Your task to perform on an android device: manage bookmarks in the chrome app Image 0: 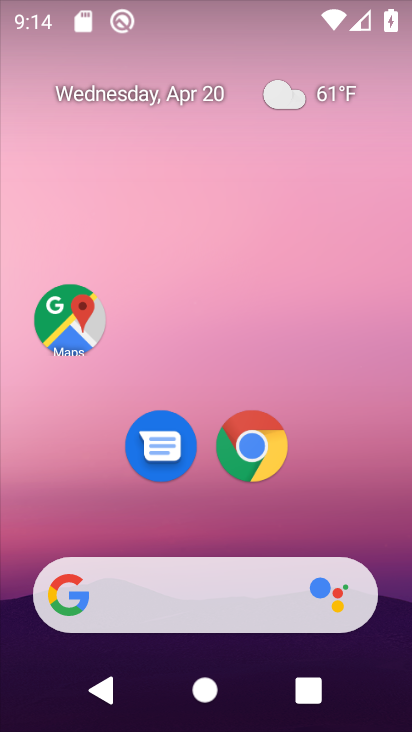
Step 0: drag from (393, 502) to (311, 156)
Your task to perform on an android device: manage bookmarks in the chrome app Image 1: 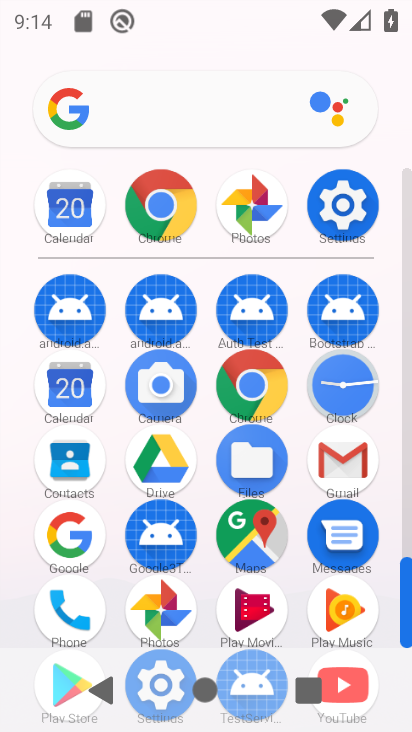
Step 1: click (265, 393)
Your task to perform on an android device: manage bookmarks in the chrome app Image 2: 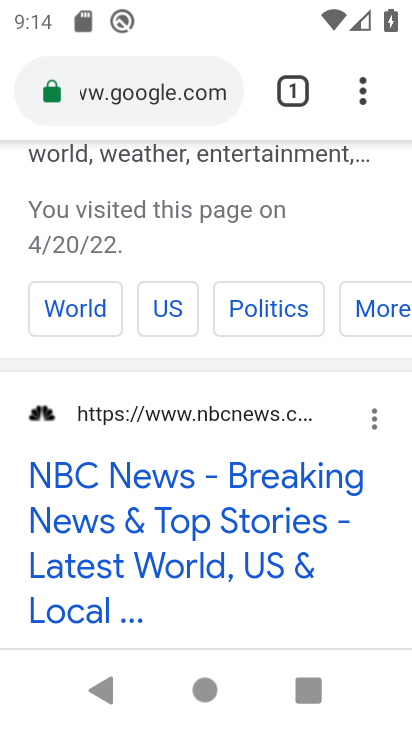
Step 2: drag from (363, 104) to (118, 446)
Your task to perform on an android device: manage bookmarks in the chrome app Image 3: 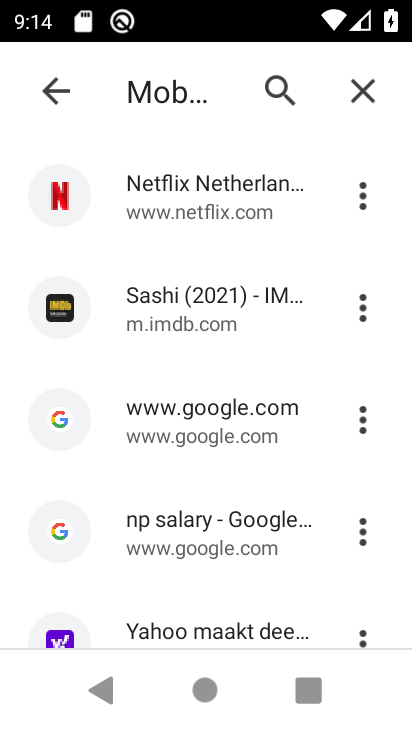
Step 3: click (357, 203)
Your task to perform on an android device: manage bookmarks in the chrome app Image 4: 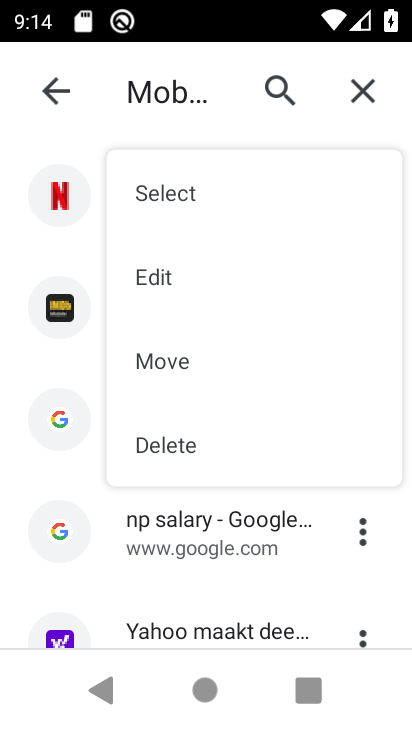
Step 4: click (166, 440)
Your task to perform on an android device: manage bookmarks in the chrome app Image 5: 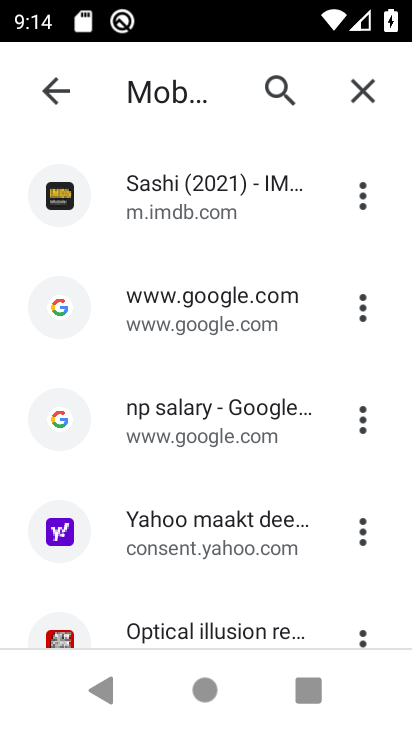
Step 5: task complete